Your task to perform on an android device: install app "Gmail" Image 0: 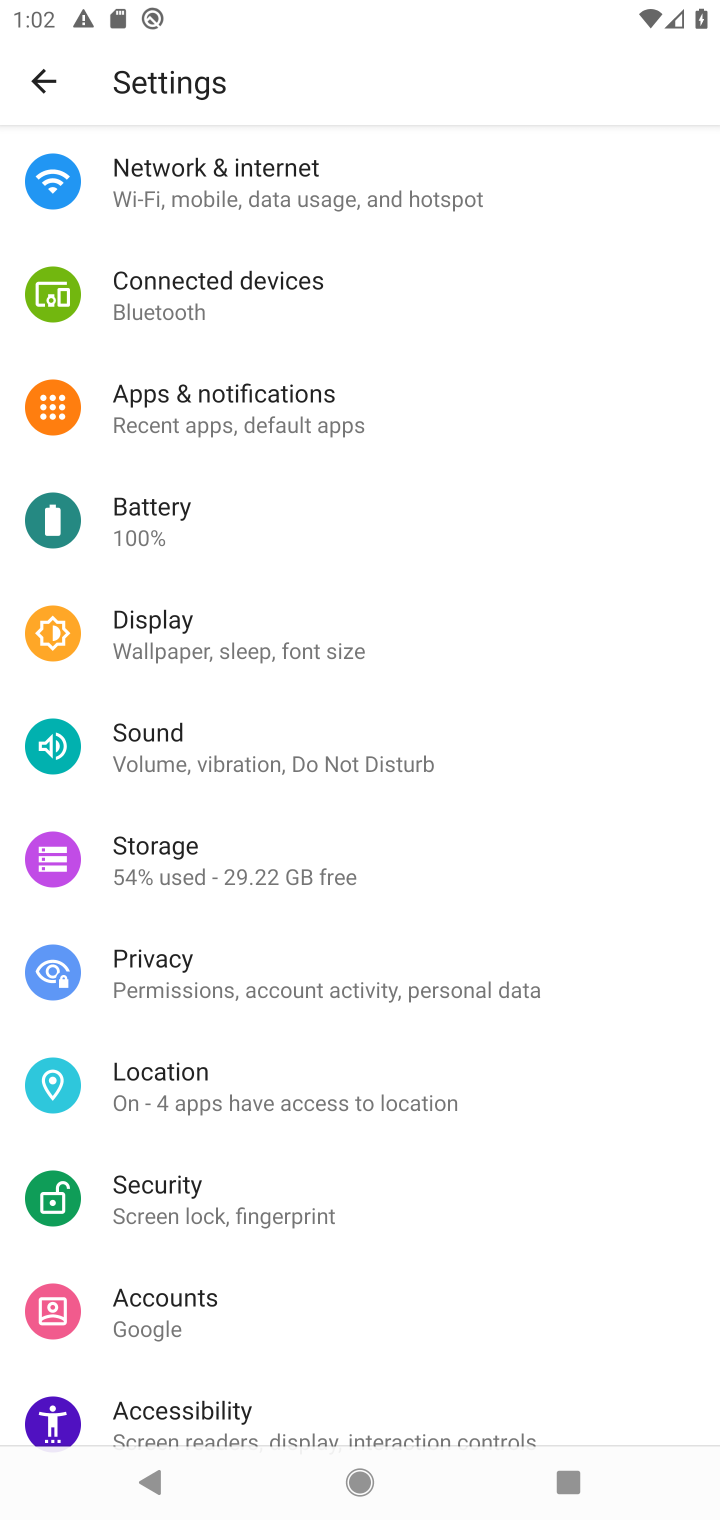
Step 0: press home button
Your task to perform on an android device: install app "Gmail" Image 1: 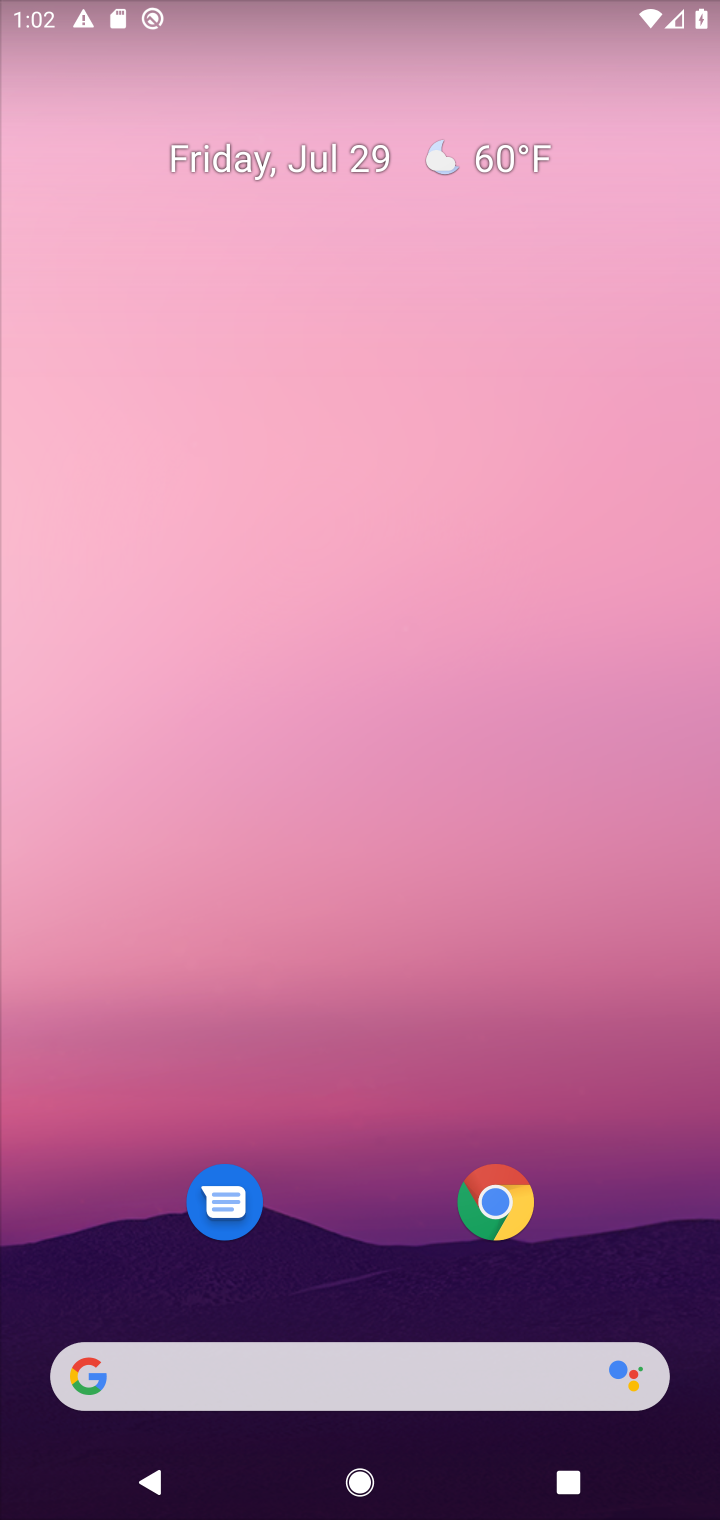
Step 1: drag from (422, 1308) to (359, 9)
Your task to perform on an android device: install app "Gmail" Image 2: 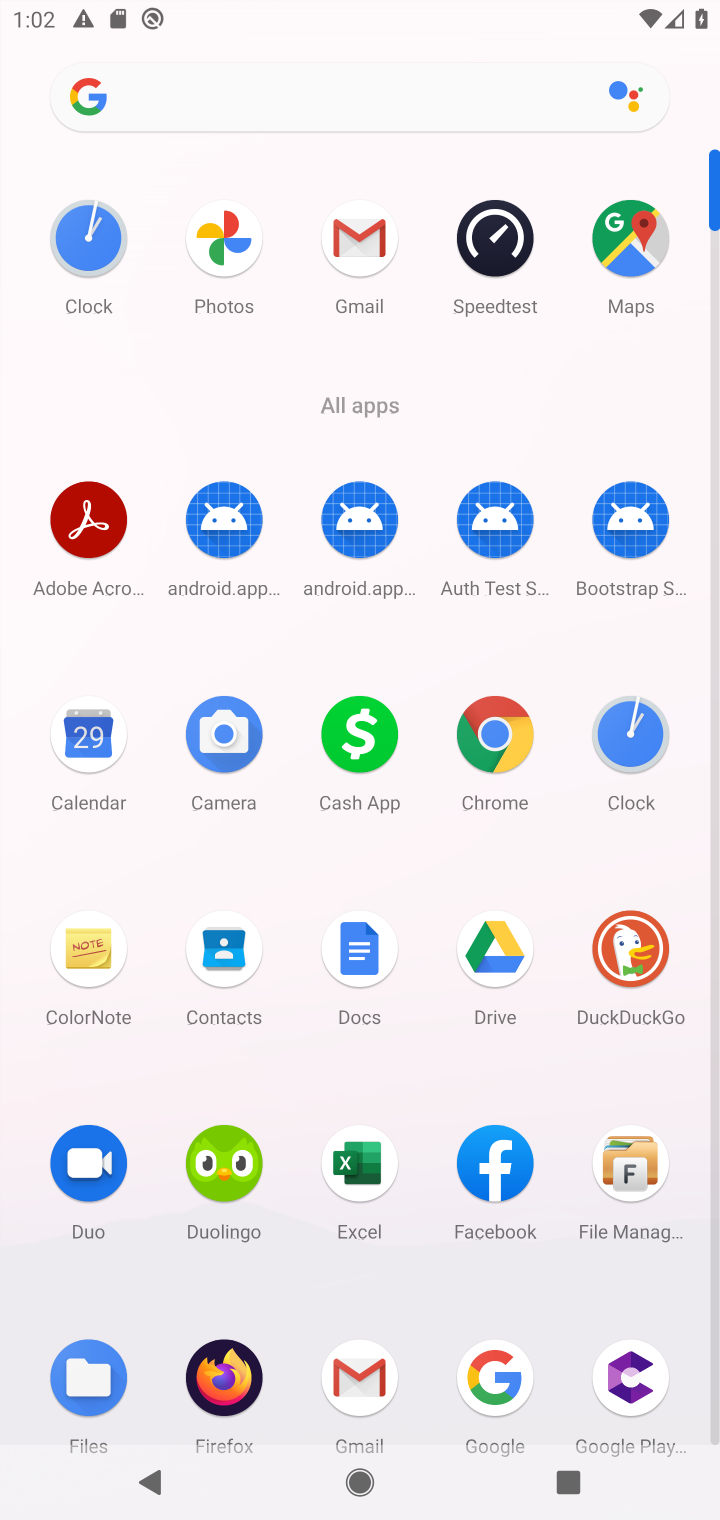
Step 2: click (366, 279)
Your task to perform on an android device: install app "Gmail" Image 3: 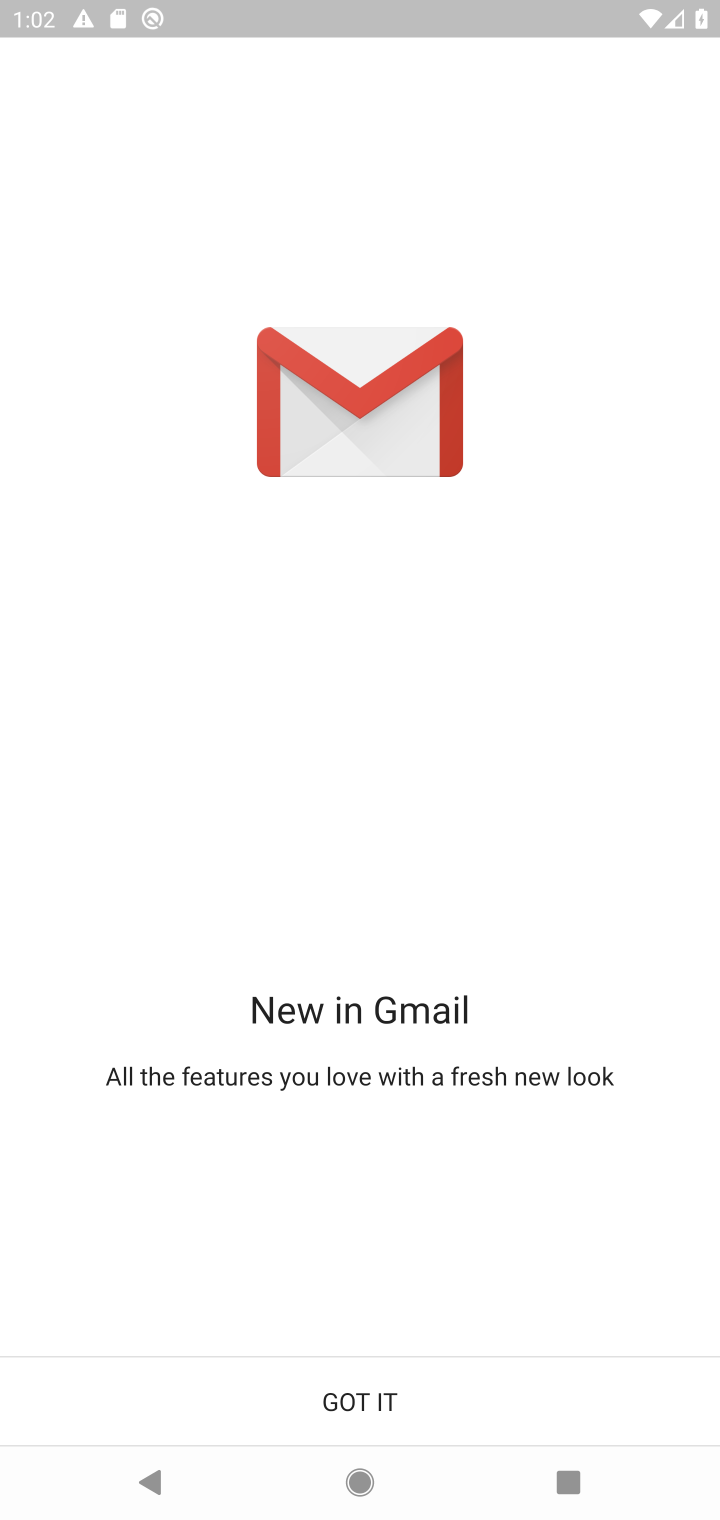
Step 3: click (386, 1398)
Your task to perform on an android device: install app "Gmail" Image 4: 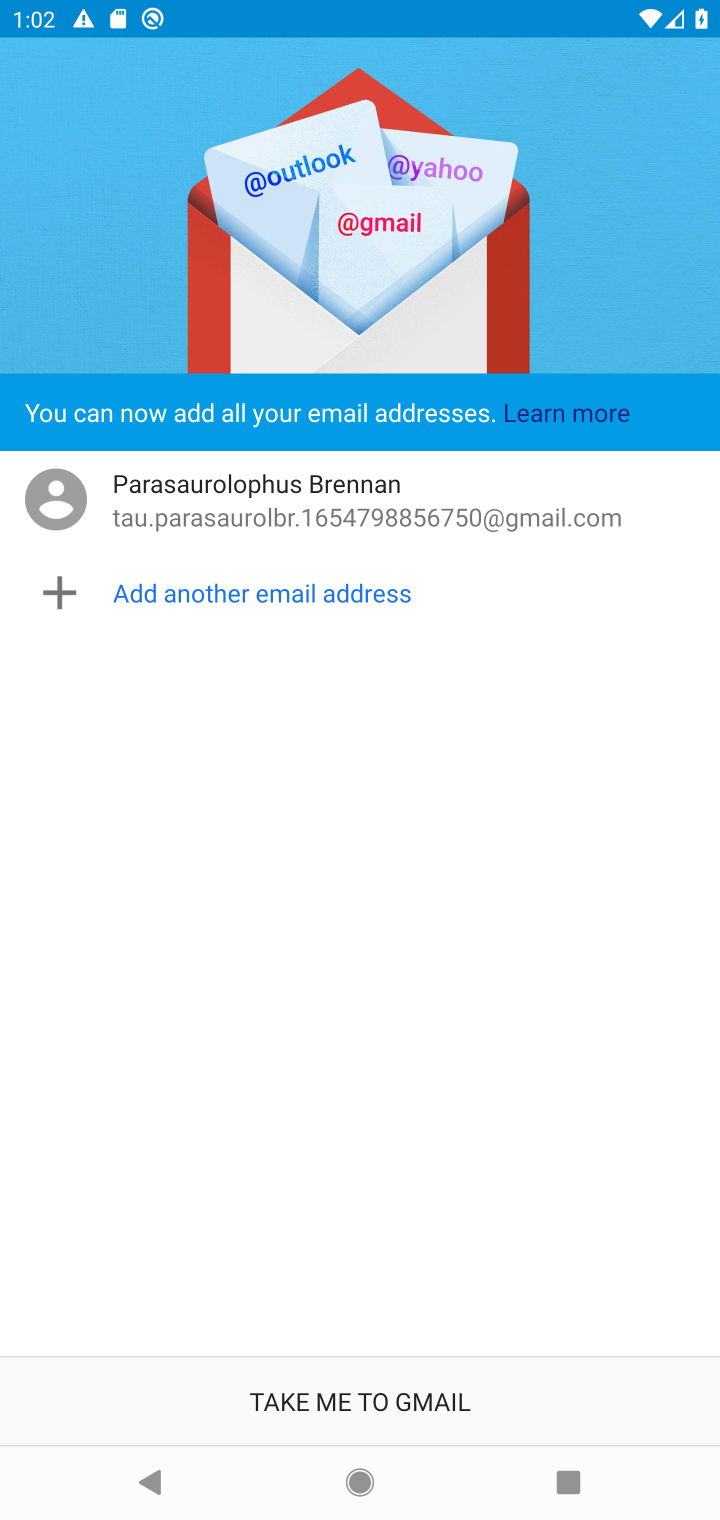
Step 4: task complete